Your task to perform on an android device: create a new album in the google photos Image 0: 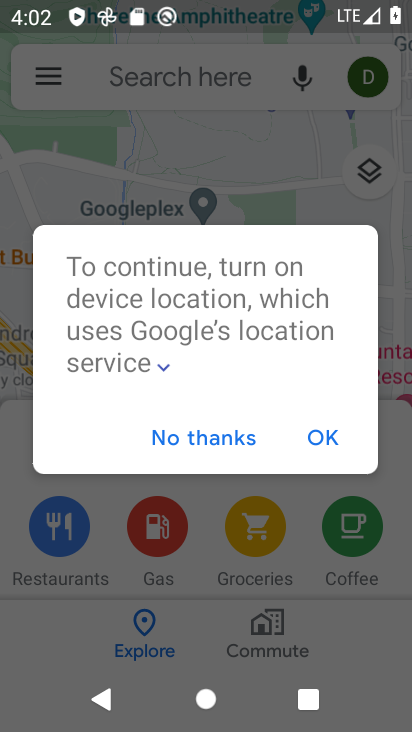
Step 0: press home button
Your task to perform on an android device: create a new album in the google photos Image 1: 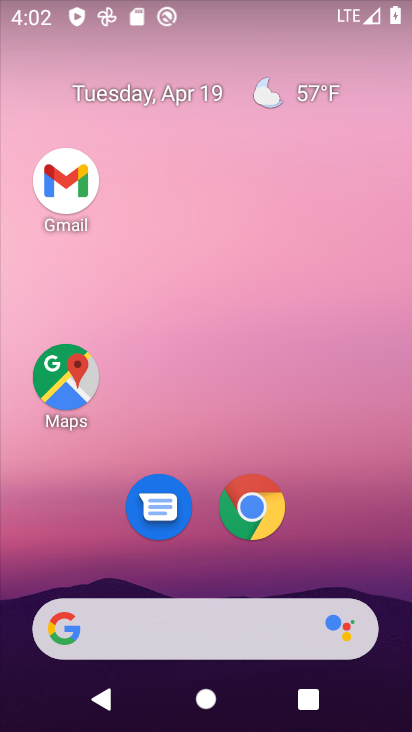
Step 1: drag from (240, 532) to (307, 101)
Your task to perform on an android device: create a new album in the google photos Image 2: 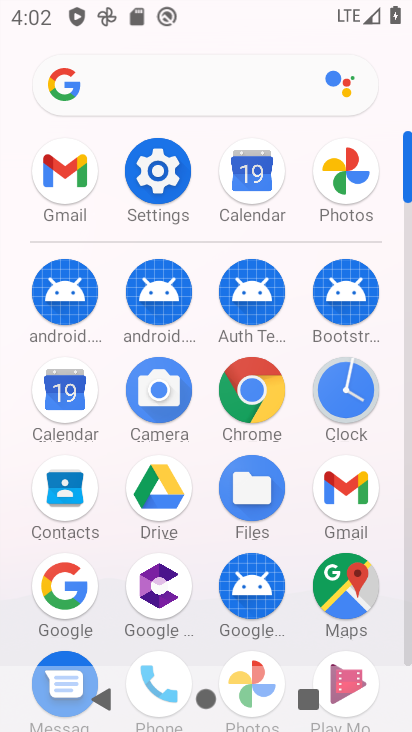
Step 2: drag from (195, 612) to (205, 247)
Your task to perform on an android device: create a new album in the google photos Image 3: 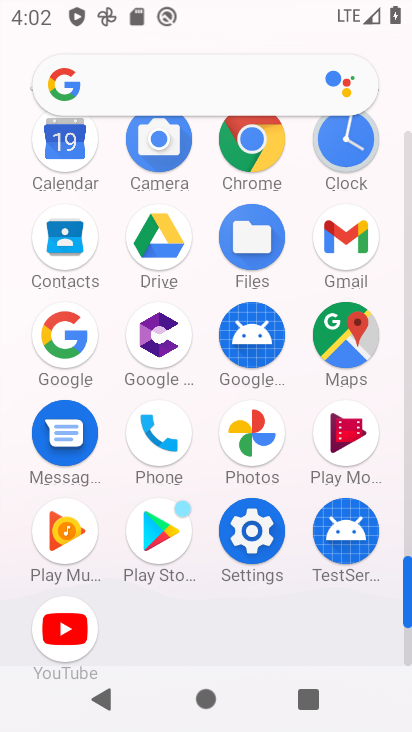
Step 3: click (248, 429)
Your task to perform on an android device: create a new album in the google photos Image 4: 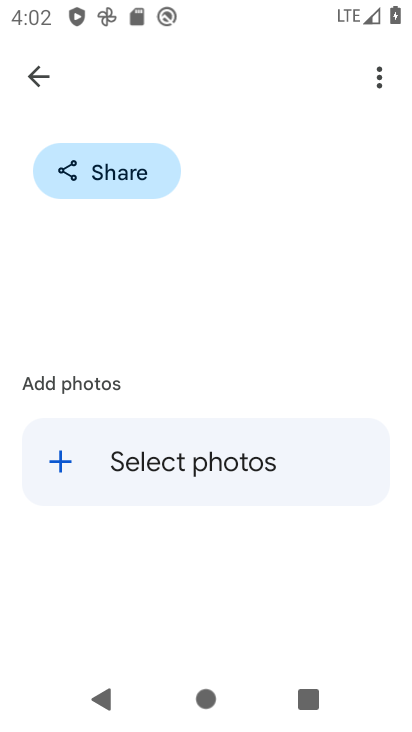
Step 4: press back button
Your task to perform on an android device: create a new album in the google photos Image 5: 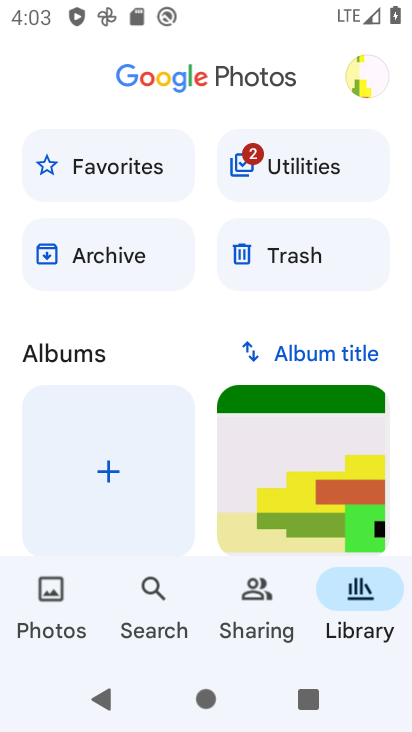
Step 5: click (90, 467)
Your task to perform on an android device: create a new album in the google photos Image 6: 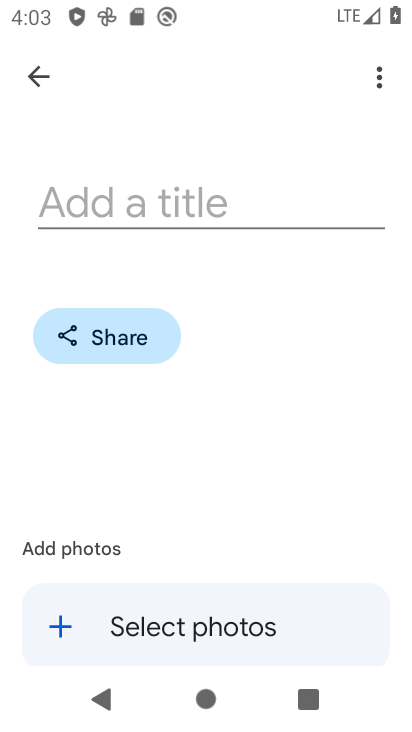
Step 6: click (186, 195)
Your task to perform on an android device: create a new album in the google photos Image 7: 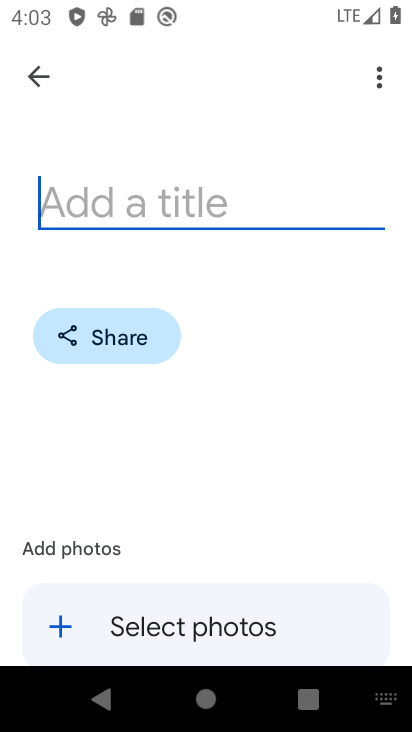
Step 7: type "tt"
Your task to perform on an android device: create a new album in the google photos Image 8: 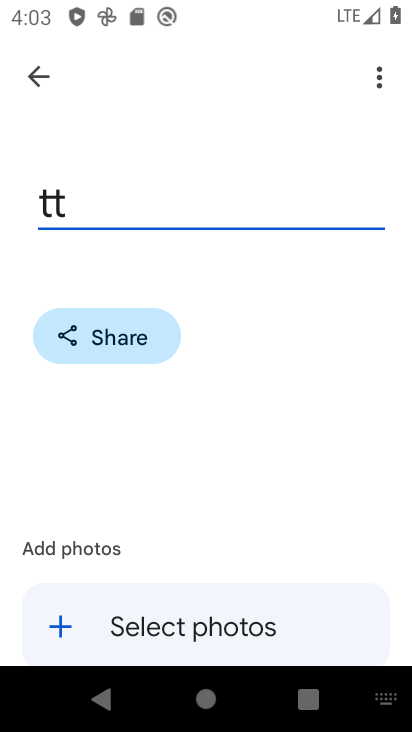
Step 8: click (146, 634)
Your task to perform on an android device: create a new album in the google photos Image 9: 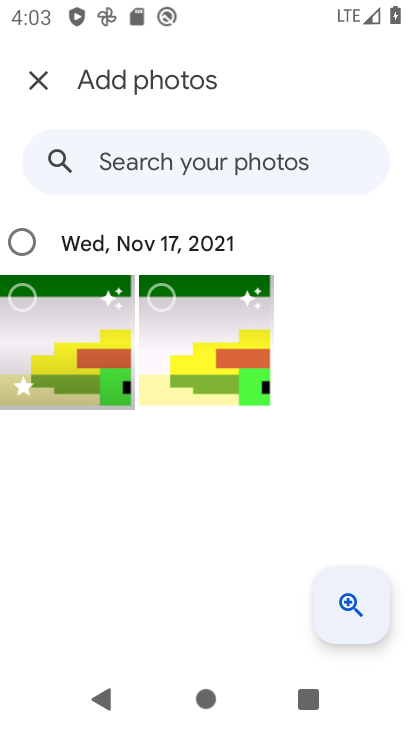
Step 9: click (27, 300)
Your task to perform on an android device: create a new album in the google photos Image 10: 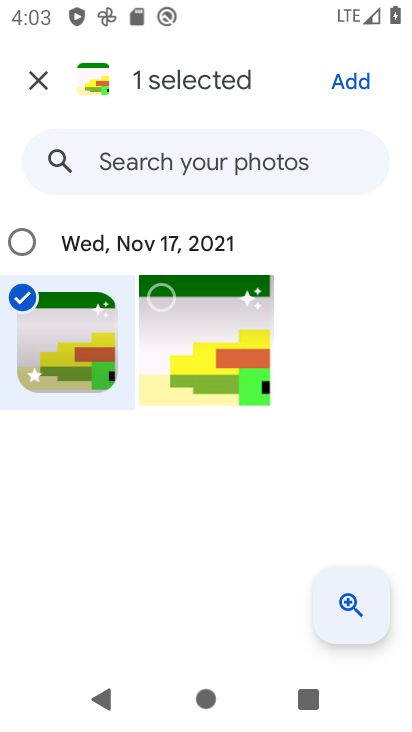
Step 10: click (161, 300)
Your task to perform on an android device: create a new album in the google photos Image 11: 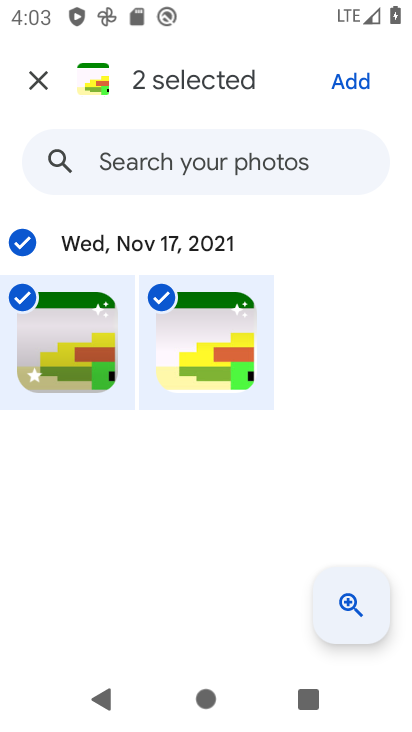
Step 11: click (362, 88)
Your task to perform on an android device: create a new album in the google photos Image 12: 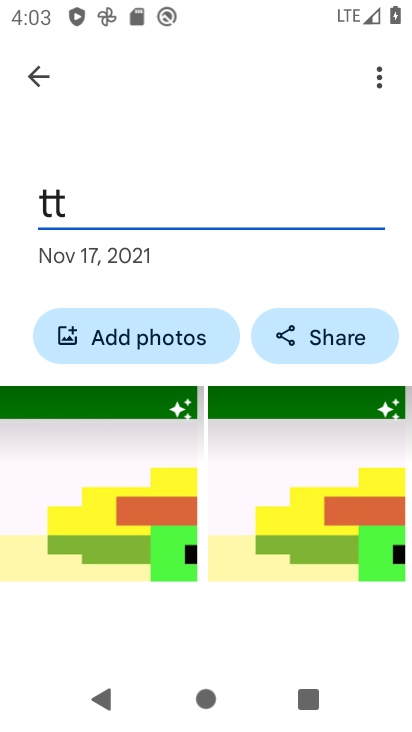
Step 12: task complete